Your task to perform on an android device: install app "PlayWell" Image 0: 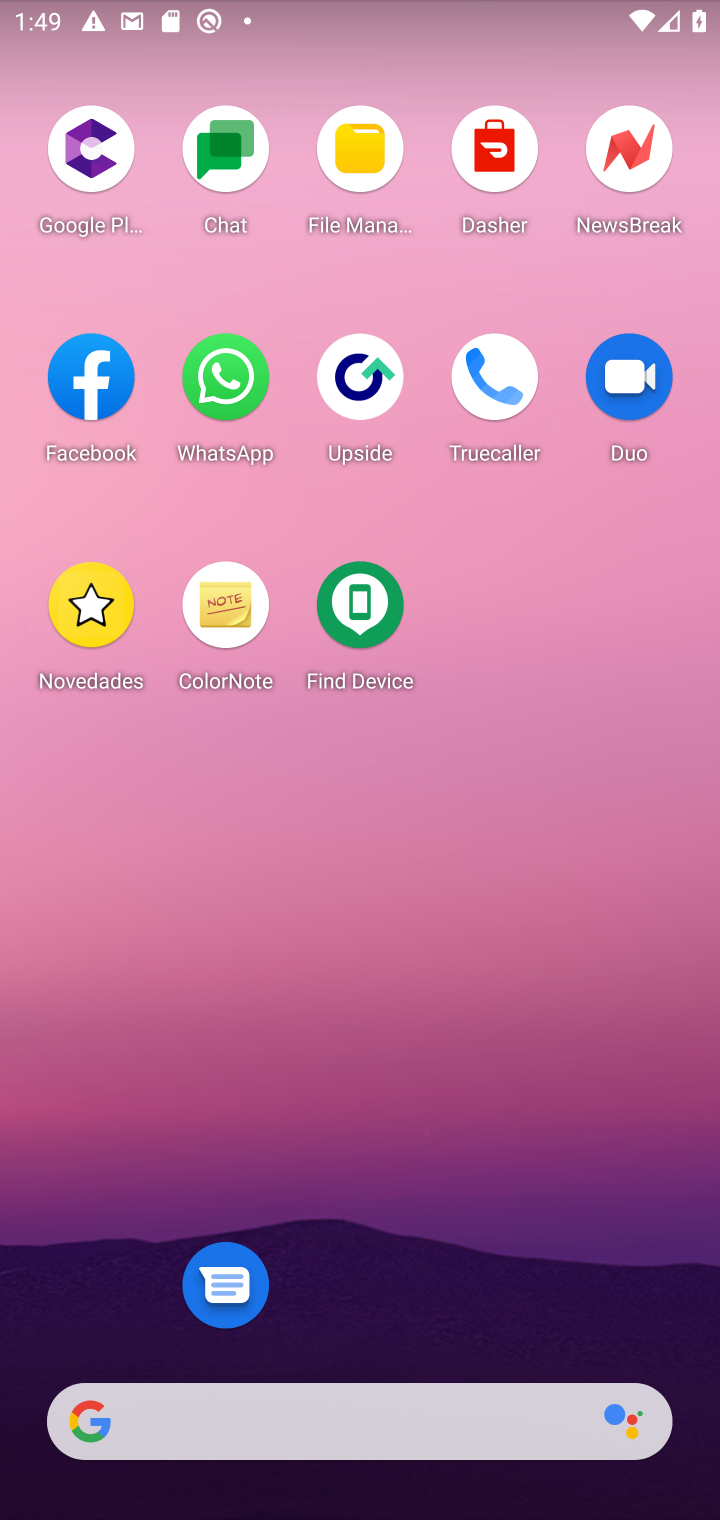
Step 0: press home button
Your task to perform on an android device: install app "PlayWell" Image 1: 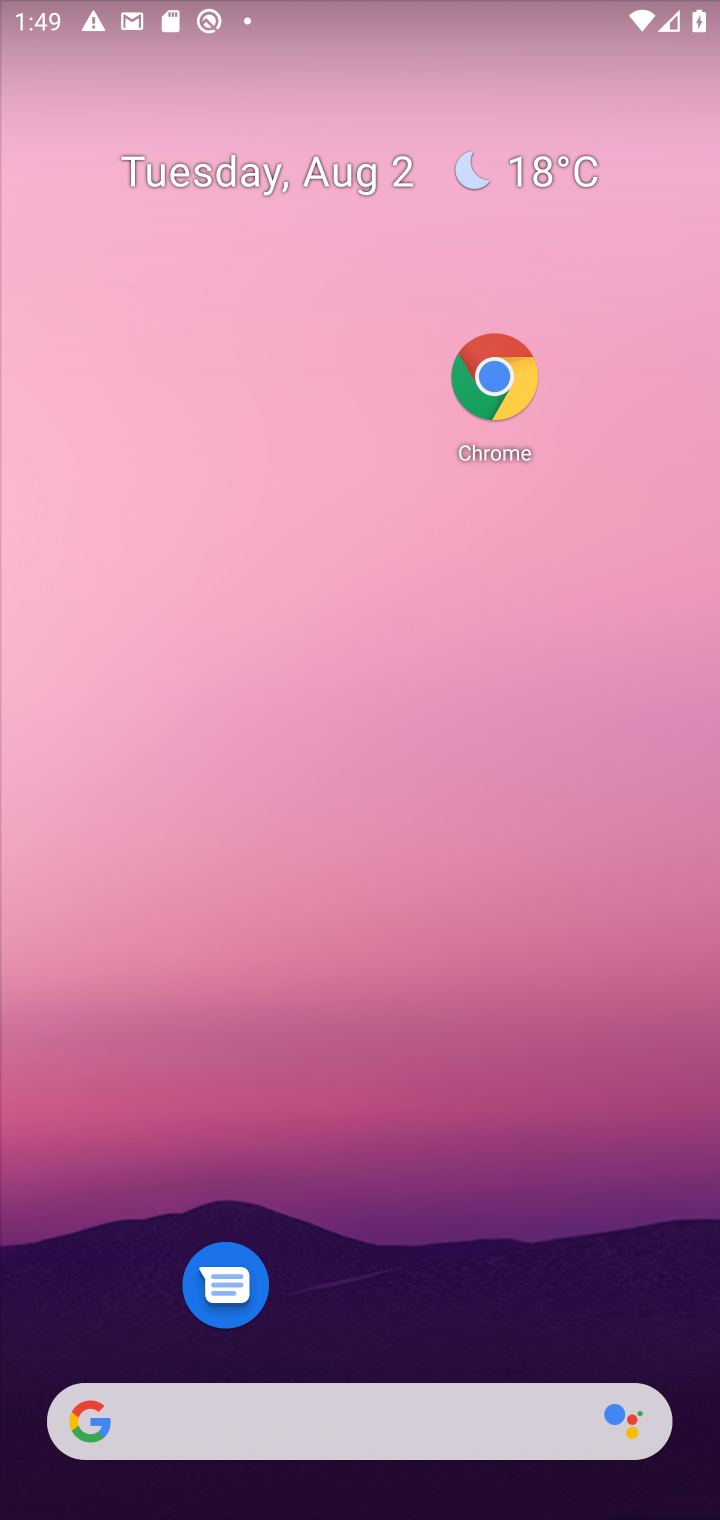
Step 1: drag from (506, 1203) to (422, 198)
Your task to perform on an android device: install app "PlayWell" Image 2: 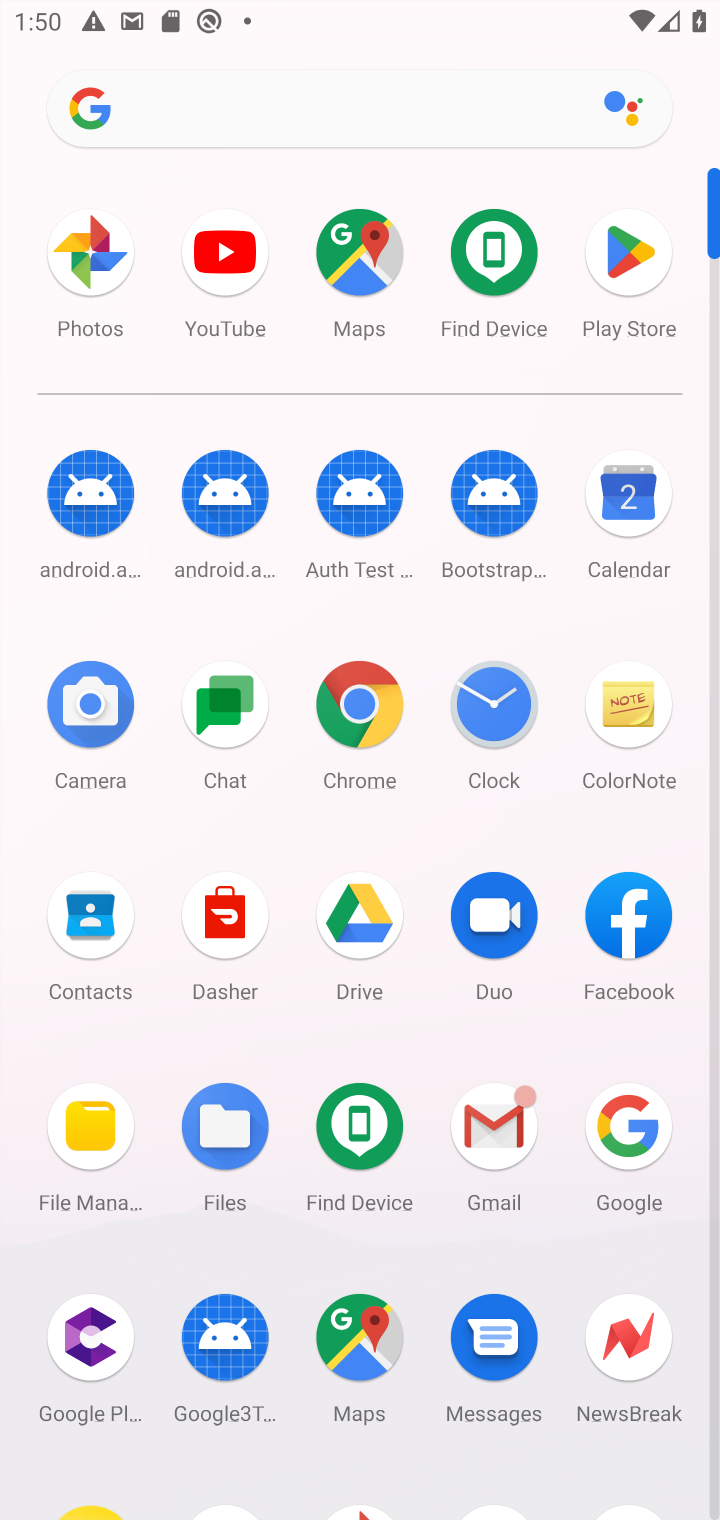
Step 2: click (613, 262)
Your task to perform on an android device: install app "PlayWell" Image 3: 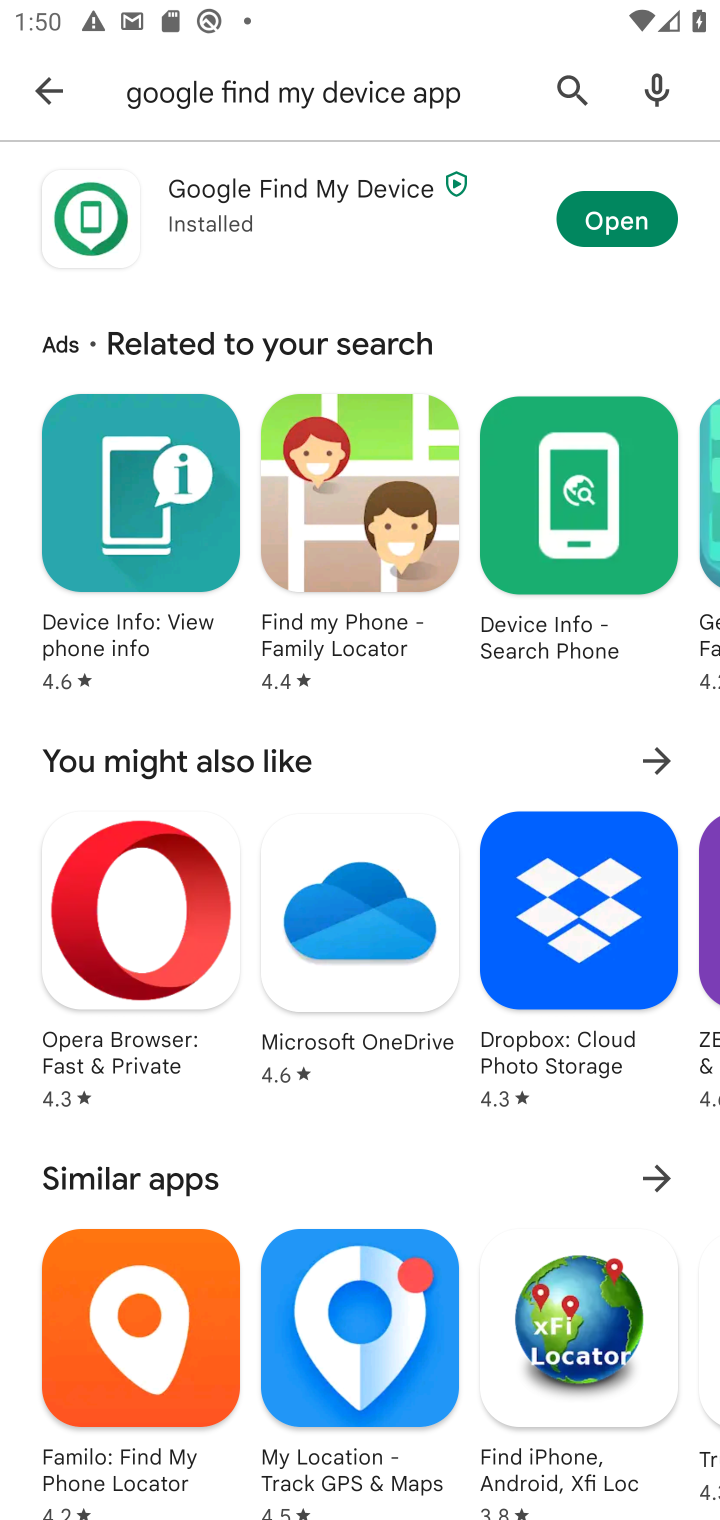
Step 3: click (579, 81)
Your task to perform on an android device: install app "PlayWell" Image 4: 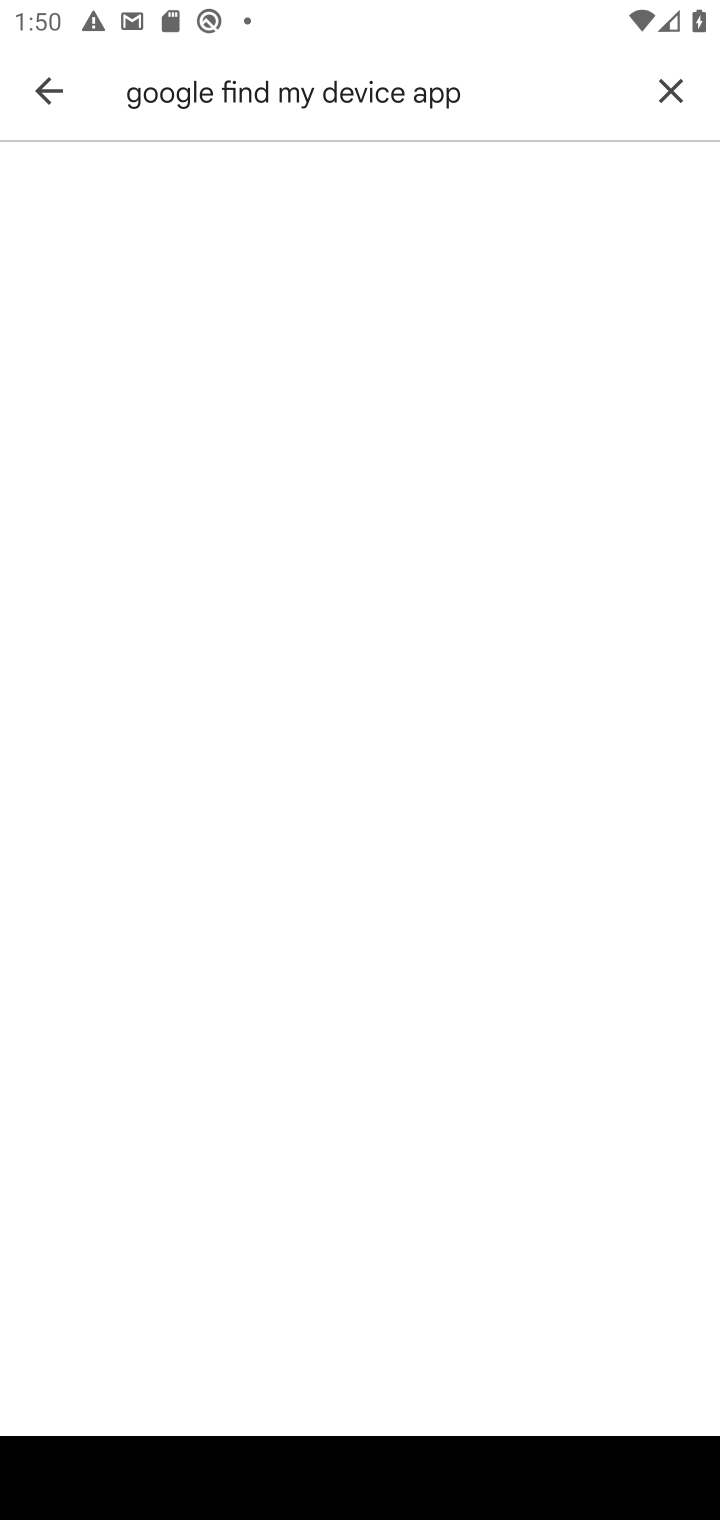
Step 4: click (662, 89)
Your task to perform on an android device: install app "PlayWell" Image 5: 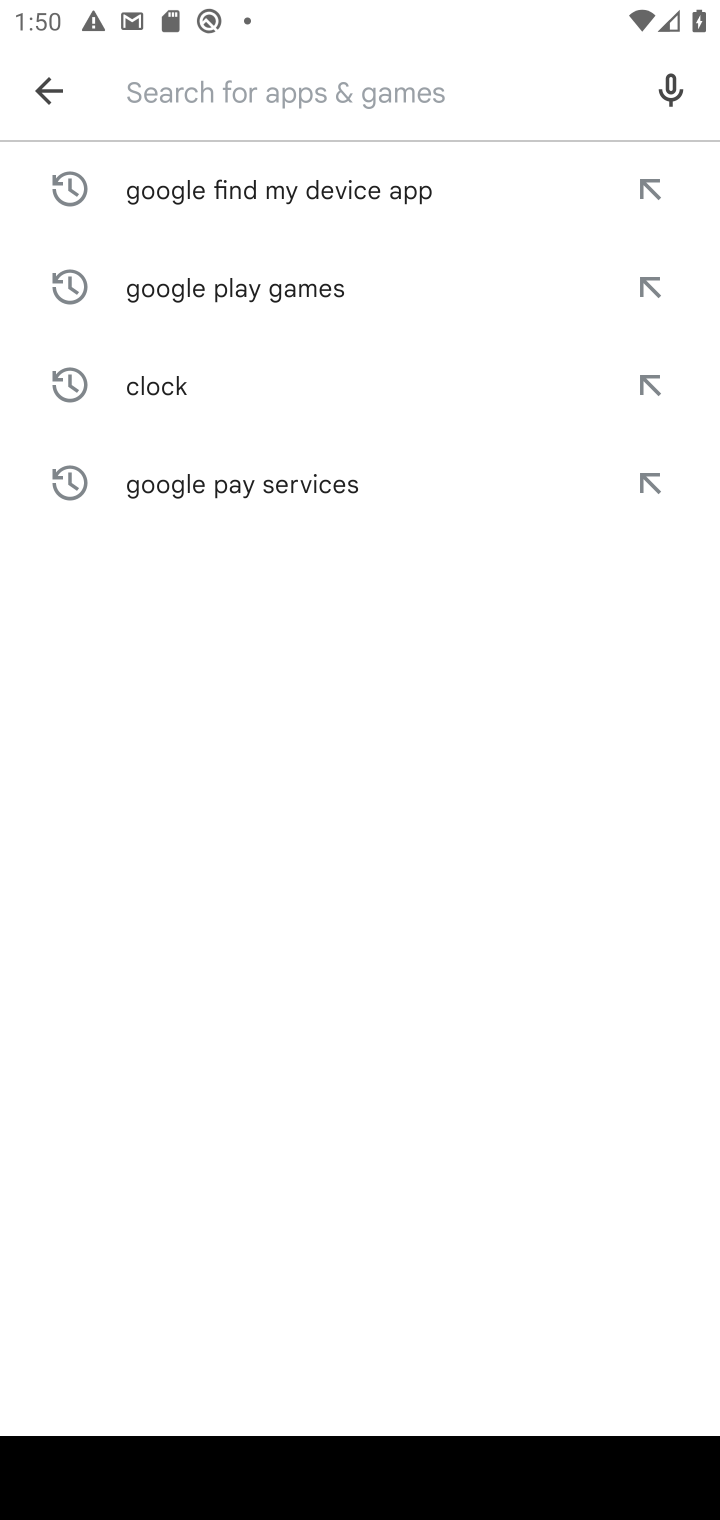
Step 5: type "PlayWell"
Your task to perform on an android device: install app "PlayWell" Image 6: 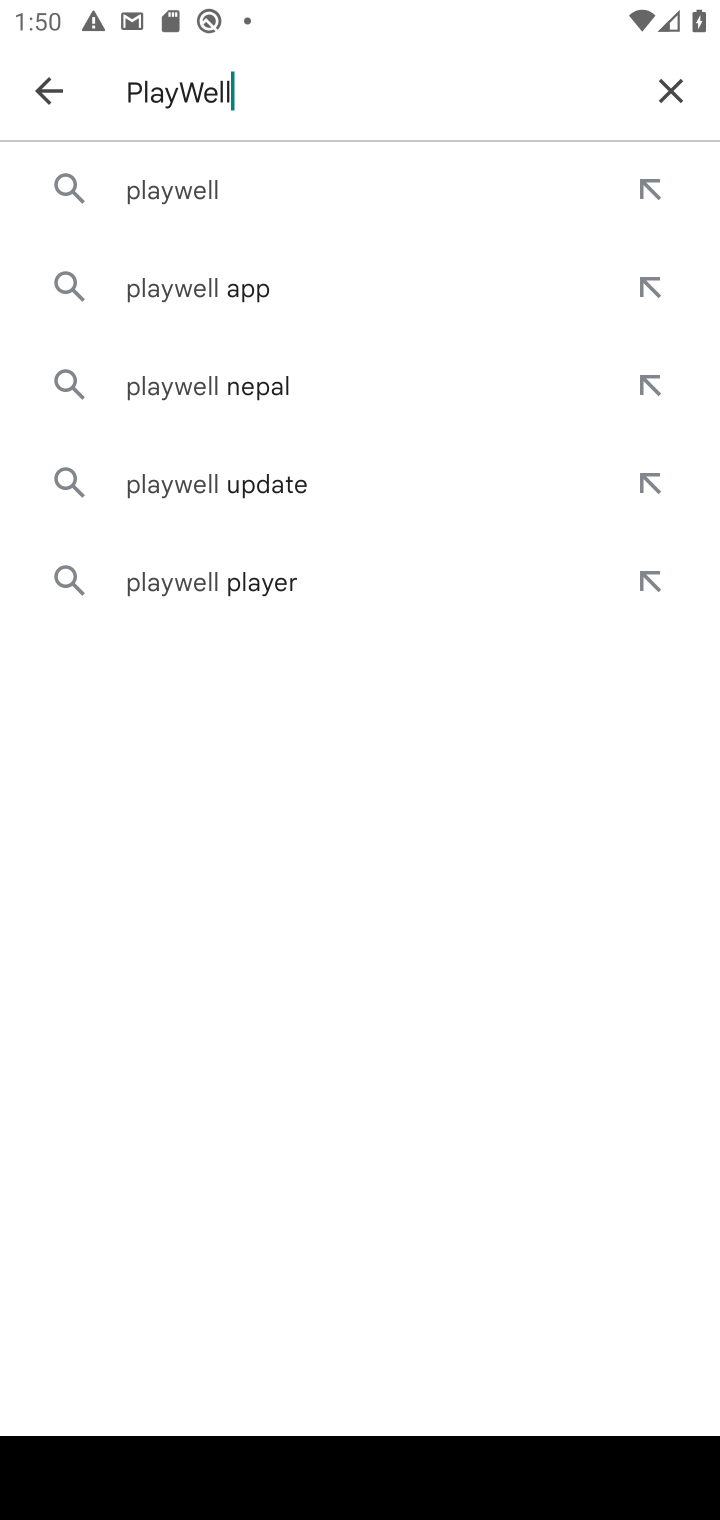
Step 6: click (190, 197)
Your task to perform on an android device: install app "PlayWell" Image 7: 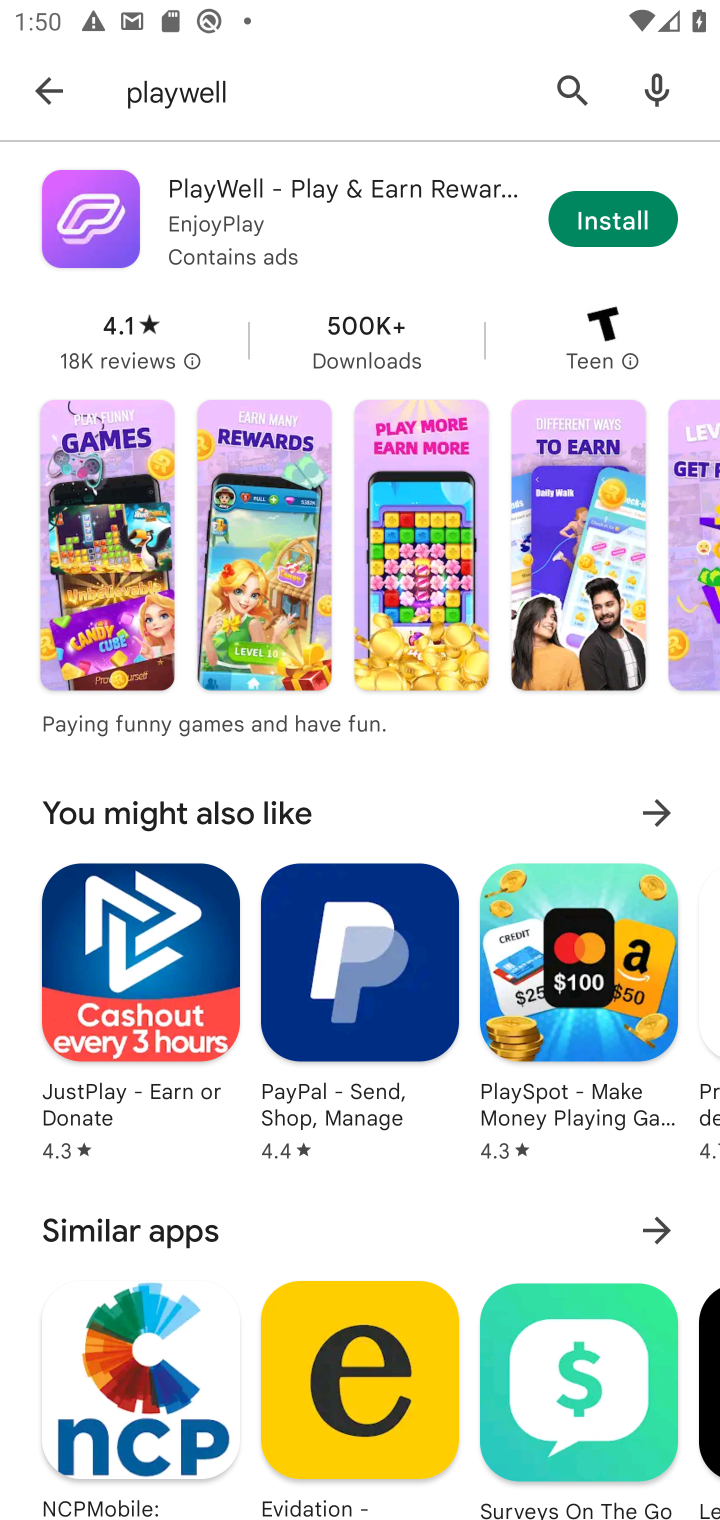
Step 7: click (651, 226)
Your task to perform on an android device: install app "PlayWell" Image 8: 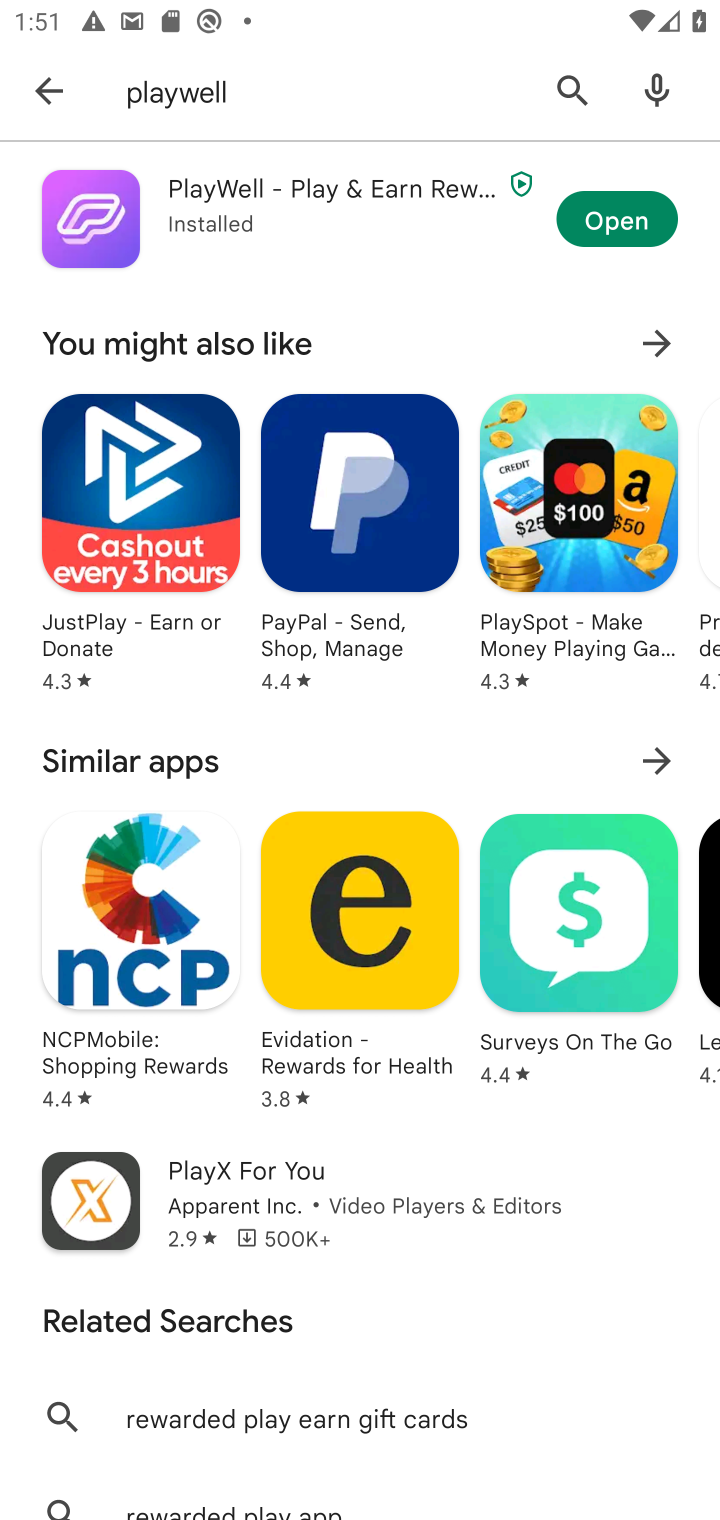
Step 8: task complete